Your task to perform on an android device: Go to eBay Image 0: 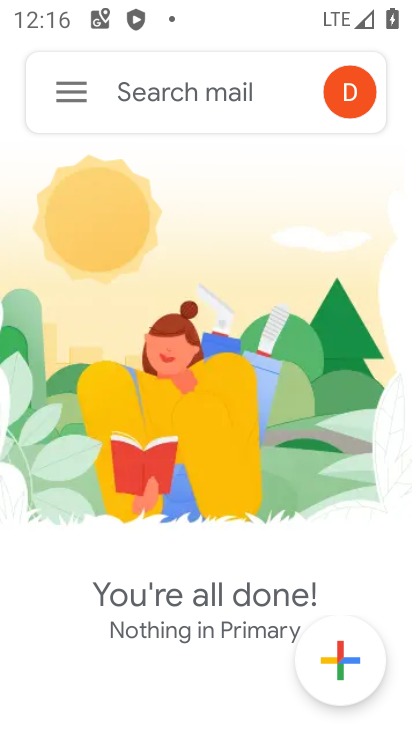
Step 0: press home button
Your task to perform on an android device: Go to eBay Image 1: 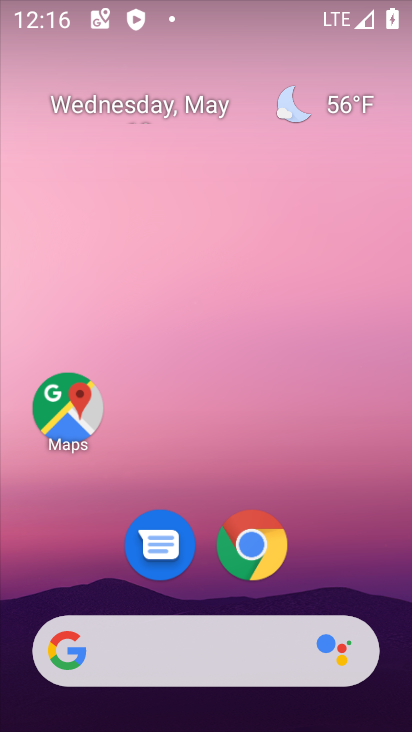
Step 1: drag from (289, 636) to (302, 277)
Your task to perform on an android device: Go to eBay Image 2: 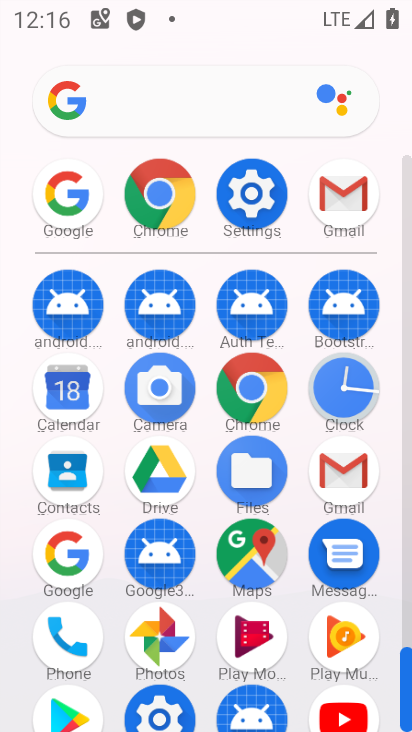
Step 2: click (166, 222)
Your task to perform on an android device: Go to eBay Image 3: 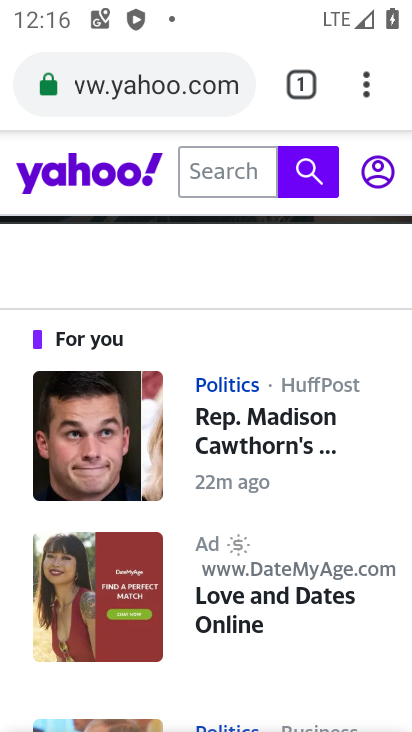
Step 3: click (194, 97)
Your task to perform on an android device: Go to eBay Image 4: 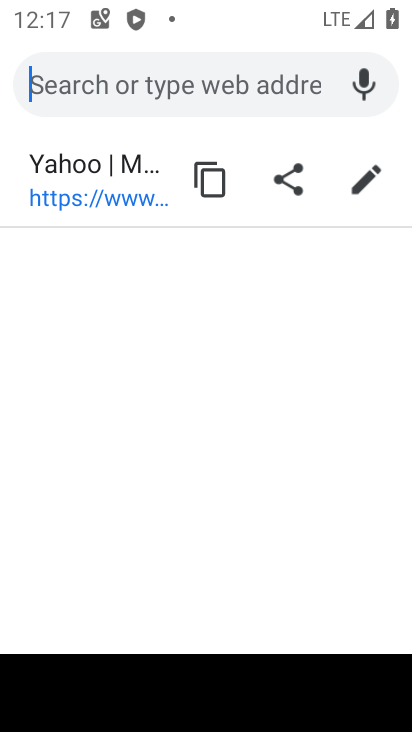
Step 4: type "ebay"
Your task to perform on an android device: Go to eBay Image 5: 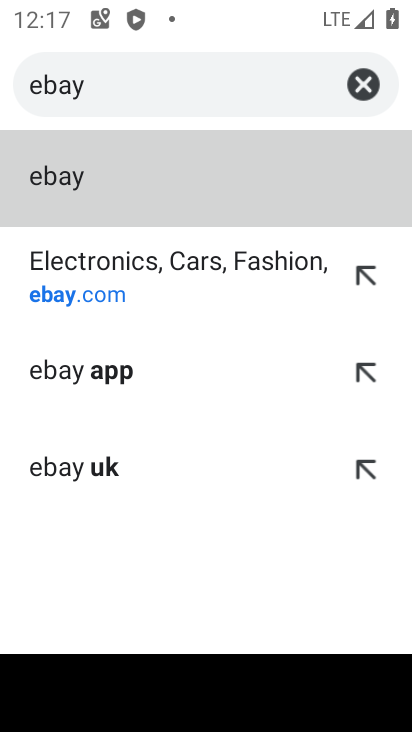
Step 5: click (246, 290)
Your task to perform on an android device: Go to eBay Image 6: 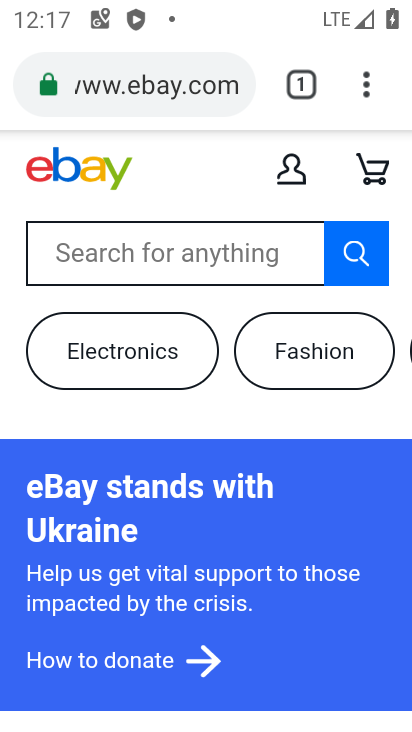
Step 6: task complete